Your task to perform on an android device: View the shopping cart on amazon. Image 0: 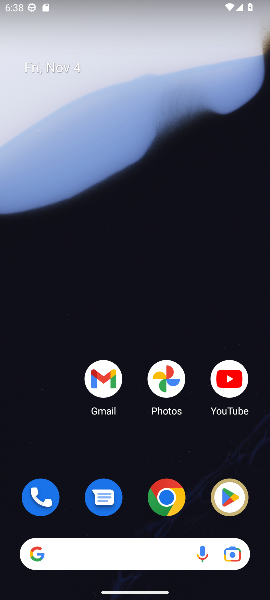
Step 0: click (168, 497)
Your task to perform on an android device: View the shopping cart on amazon. Image 1: 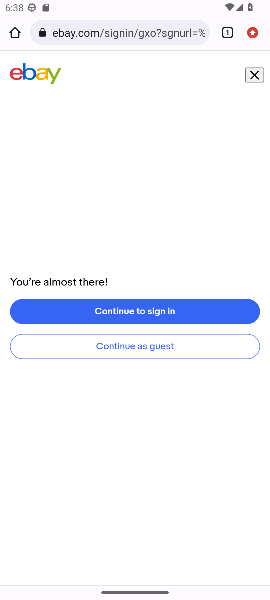
Step 1: click (106, 40)
Your task to perform on an android device: View the shopping cart on amazon. Image 2: 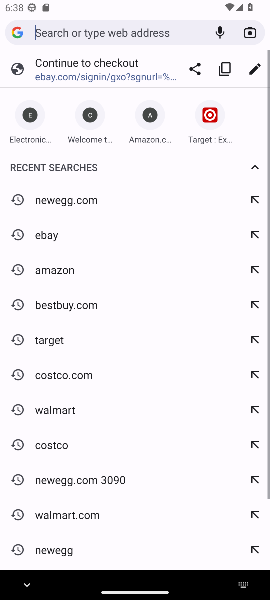
Step 2: click (58, 275)
Your task to perform on an android device: View the shopping cart on amazon. Image 3: 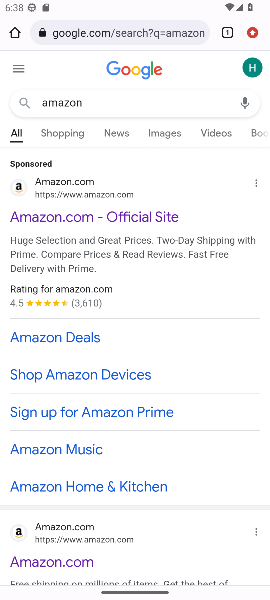
Step 3: click (72, 560)
Your task to perform on an android device: View the shopping cart on amazon. Image 4: 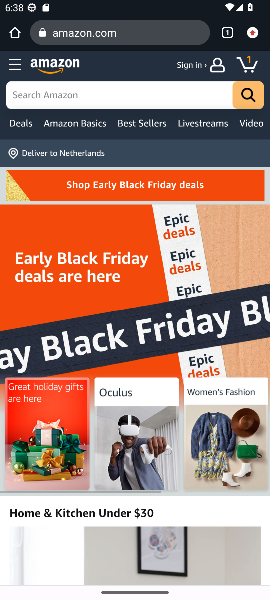
Step 4: click (256, 65)
Your task to perform on an android device: View the shopping cart on amazon. Image 5: 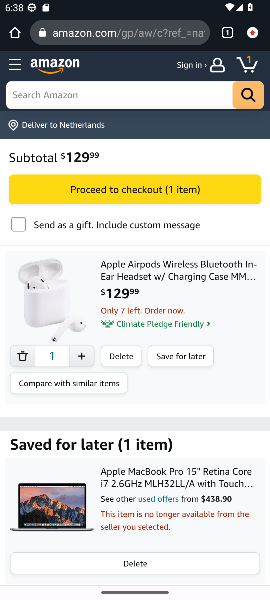
Step 5: task complete